Your task to perform on an android device: Open calendar and show me the second week of next month Image 0: 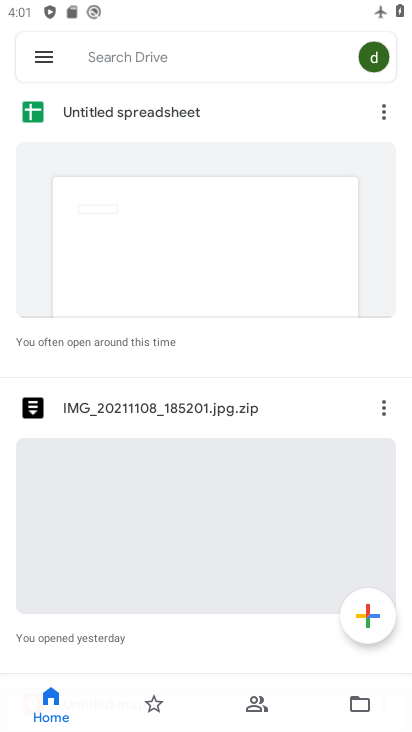
Step 0: press home button
Your task to perform on an android device: Open calendar and show me the second week of next month Image 1: 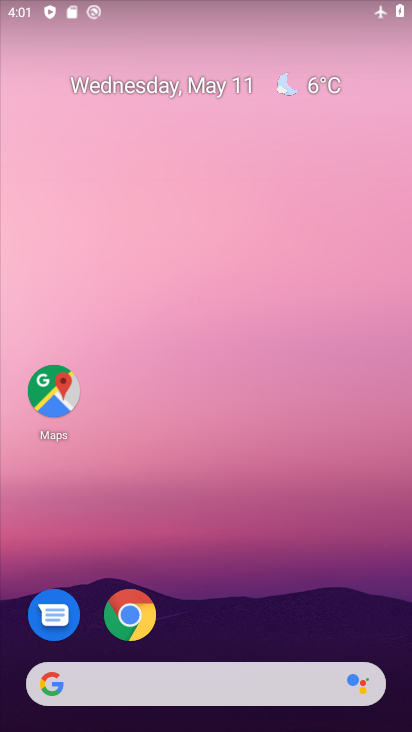
Step 1: drag from (310, 559) to (217, 263)
Your task to perform on an android device: Open calendar and show me the second week of next month Image 2: 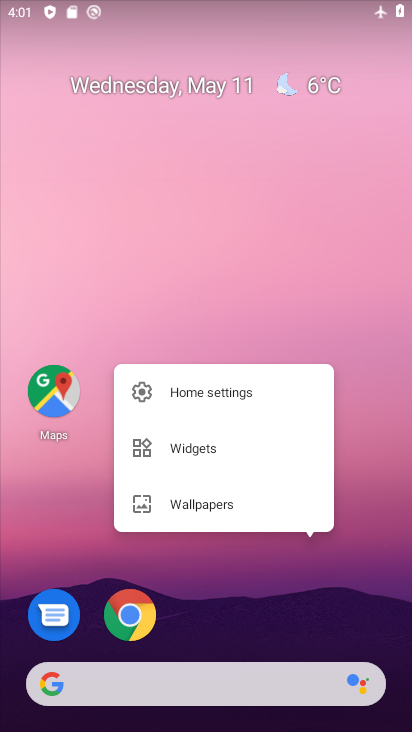
Step 2: drag from (334, 602) to (251, 190)
Your task to perform on an android device: Open calendar and show me the second week of next month Image 3: 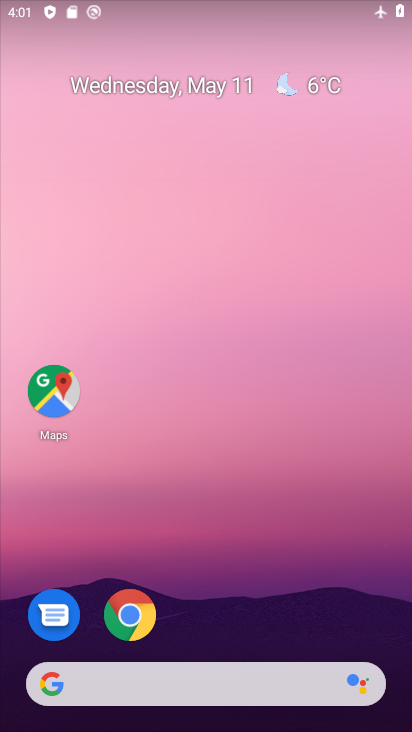
Step 3: drag from (261, 643) to (199, 307)
Your task to perform on an android device: Open calendar and show me the second week of next month Image 4: 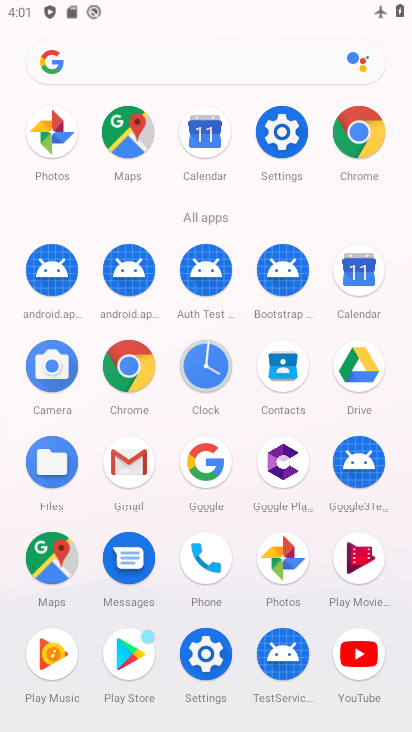
Step 4: click (364, 263)
Your task to perform on an android device: Open calendar and show me the second week of next month Image 5: 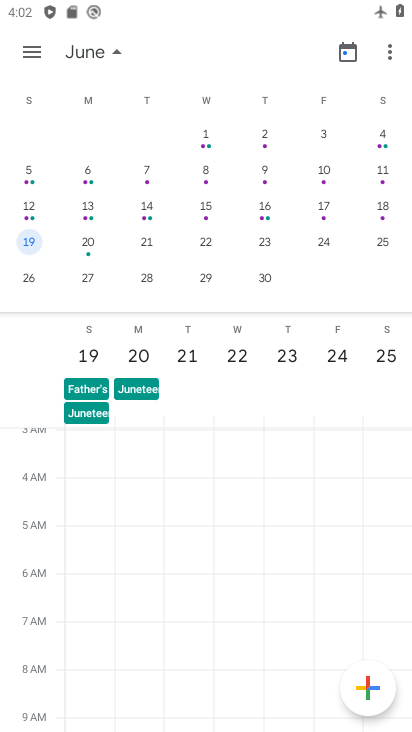
Step 5: click (32, 211)
Your task to perform on an android device: Open calendar and show me the second week of next month Image 6: 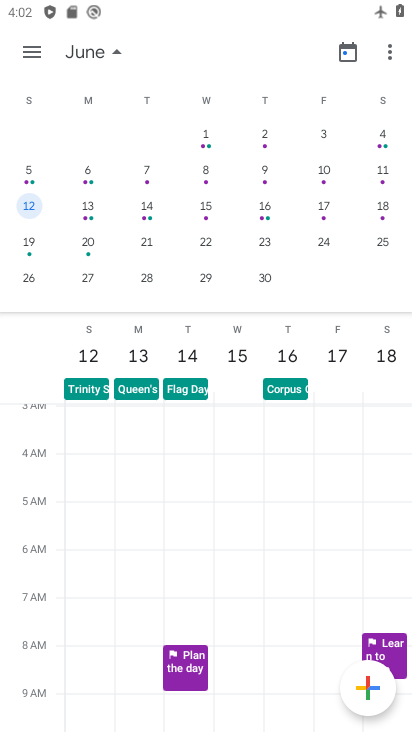
Step 6: click (87, 211)
Your task to perform on an android device: Open calendar and show me the second week of next month Image 7: 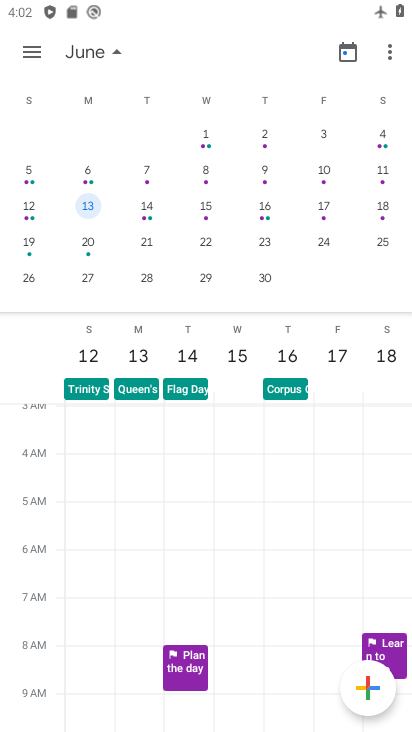
Step 7: task complete